Your task to perform on an android device: stop showing notifications on the lock screen Image 0: 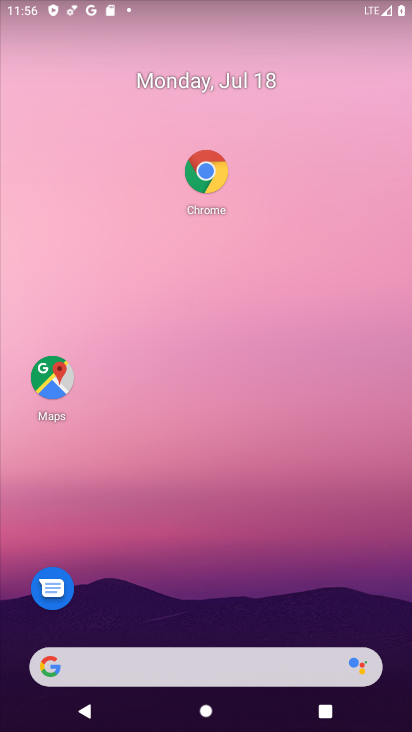
Step 0: drag from (147, 628) to (127, 33)
Your task to perform on an android device: stop showing notifications on the lock screen Image 1: 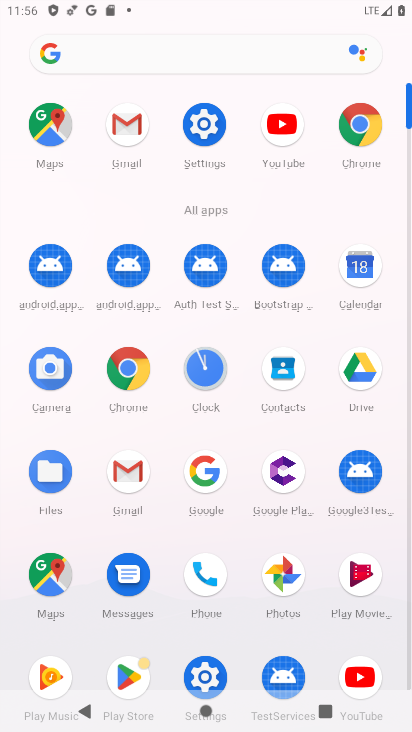
Step 1: click (201, 135)
Your task to perform on an android device: stop showing notifications on the lock screen Image 2: 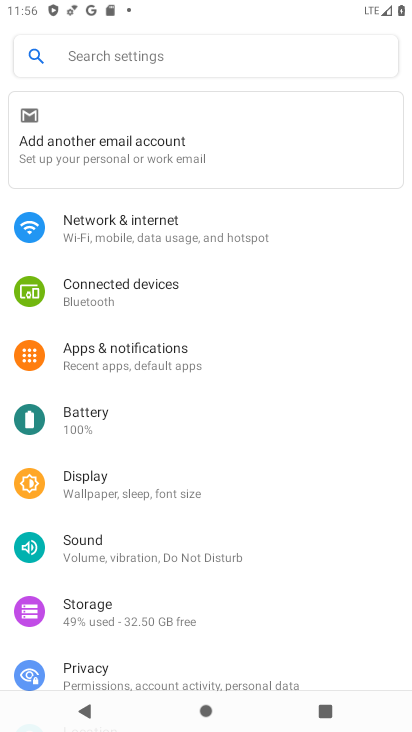
Step 2: click (118, 350)
Your task to perform on an android device: stop showing notifications on the lock screen Image 3: 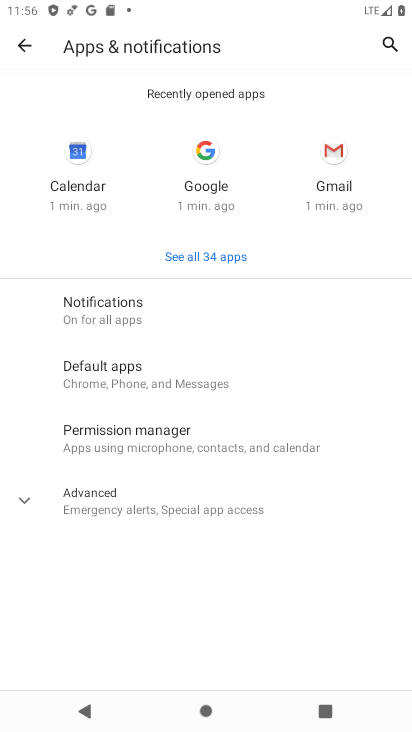
Step 3: click (105, 331)
Your task to perform on an android device: stop showing notifications on the lock screen Image 4: 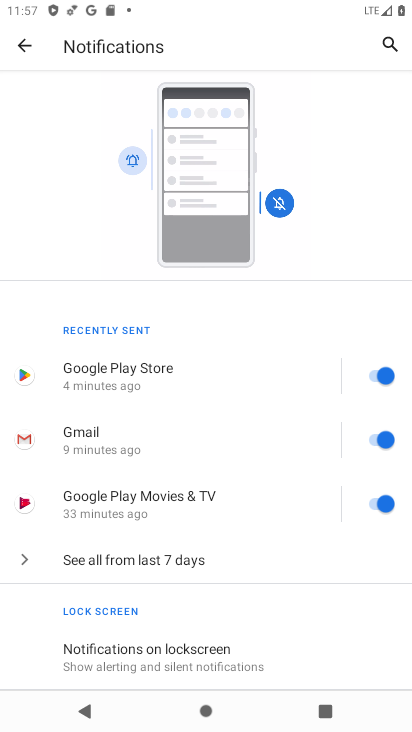
Step 4: click (133, 658)
Your task to perform on an android device: stop showing notifications on the lock screen Image 5: 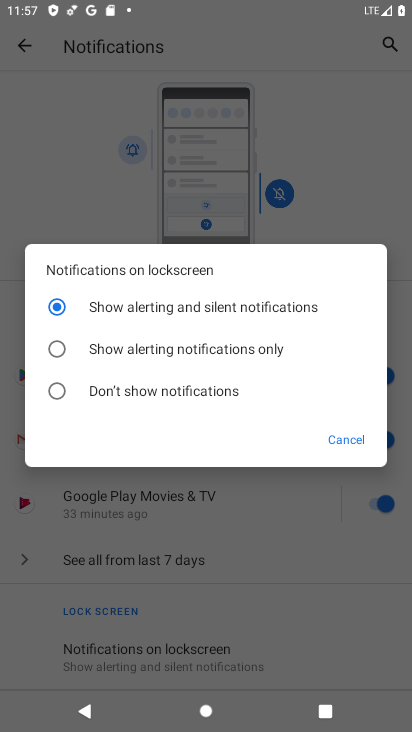
Step 5: click (133, 400)
Your task to perform on an android device: stop showing notifications on the lock screen Image 6: 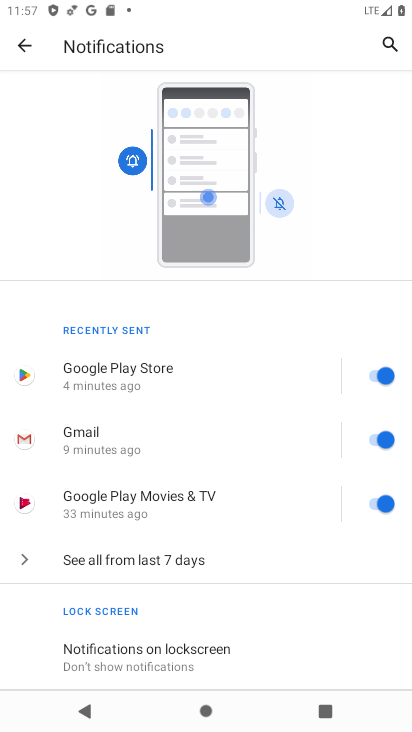
Step 6: task complete